Your task to perform on an android device: Search for pizza restaurants on Maps Image 0: 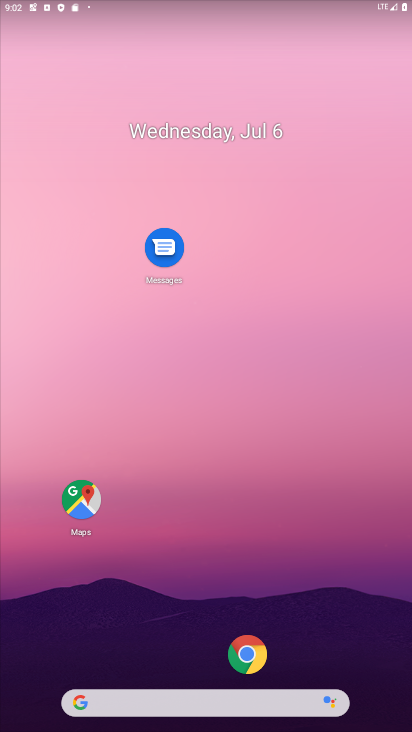
Step 0: click (81, 496)
Your task to perform on an android device: Search for pizza restaurants on Maps Image 1: 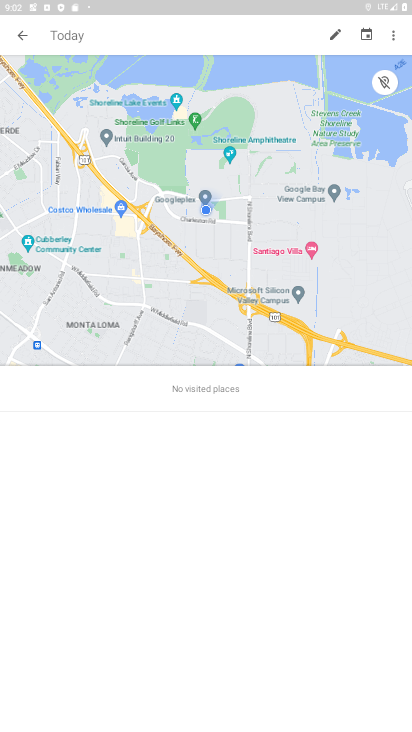
Step 1: click (25, 30)
Your task to perform on an android device: Search for pizza restaurants on Maps Image 2: 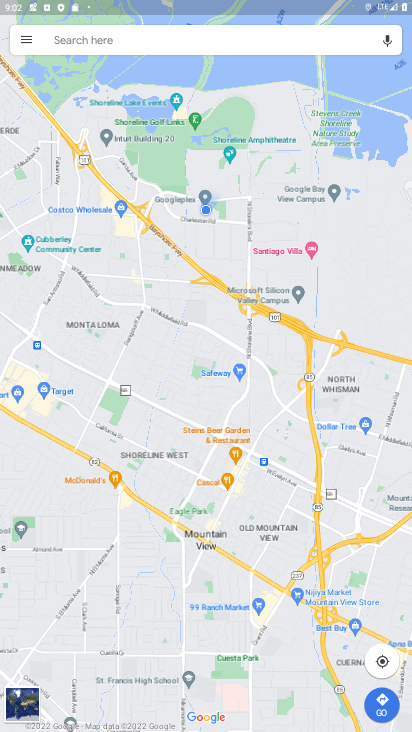
Step 2: click (167, 40)
Your task to perform on an android device: Search for pizza restaurants on Maps Image 3: 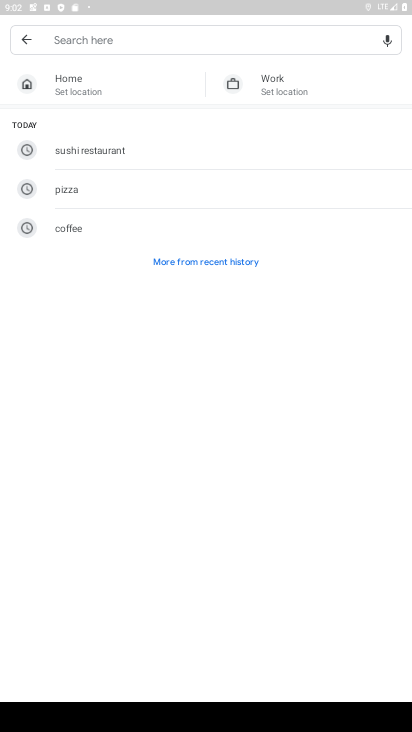
Step 3: click (100, 186)
Your task to perform on an android device: Search for pizza restaurants on Maps Image 4: 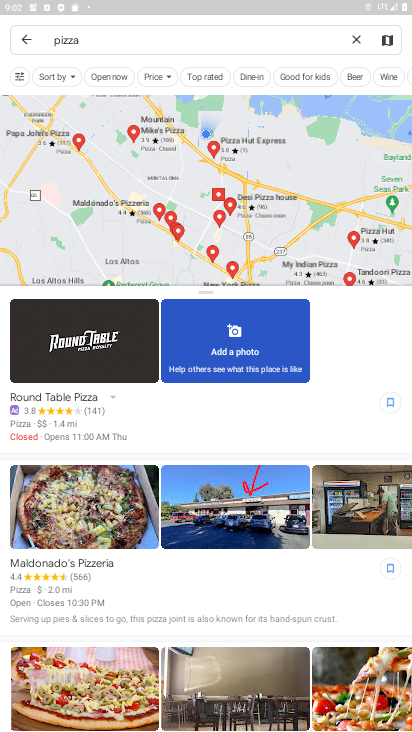
Step 4: task complete